Your task to perform on an android device: search for starred emails in the gmail app Image 0: 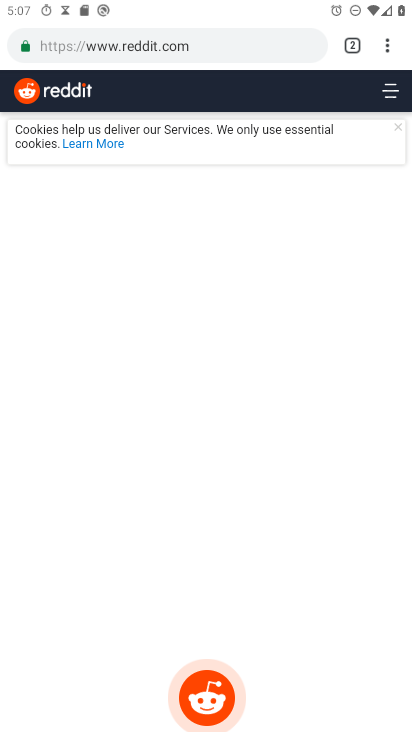
Step 0: press home button
Your task to perform on an android device: search for starred emails in the gmail app Image 1: 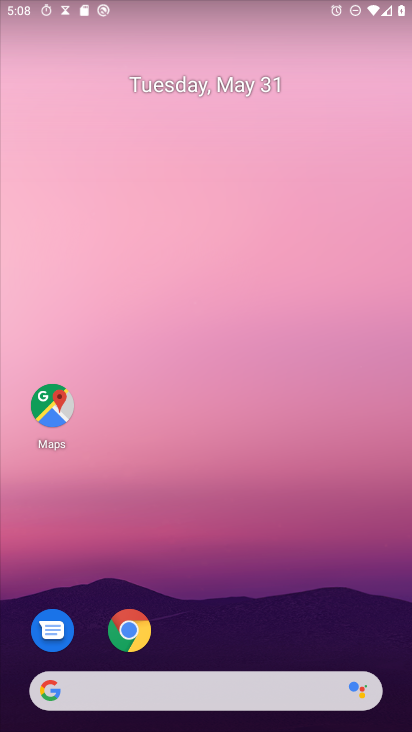
Step 1: drag from (178, 690) to (211, 28)
Your task to perform on an android device: search for starred emails in the gmail app Image 2: 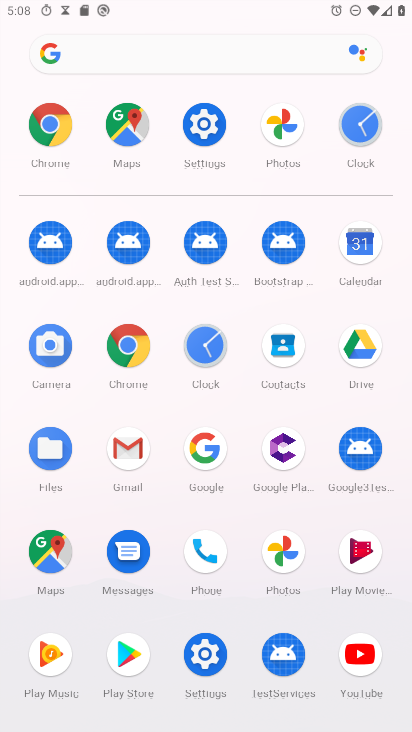
Step 2: click (135, 448)
Your task to perform on an android device: search for starred emails in the gmail app Image 3: 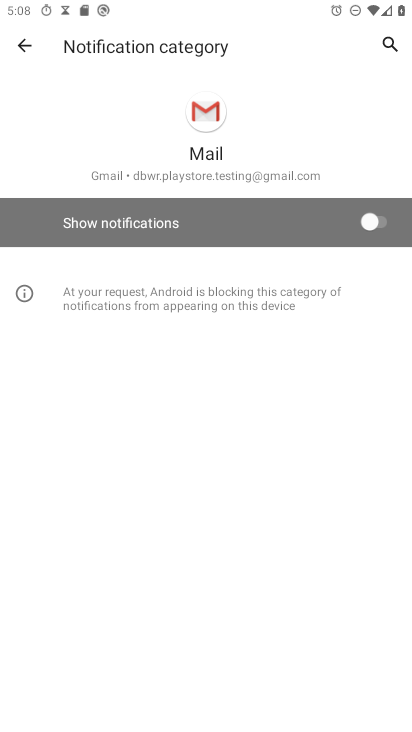
Step 3: press back button
Your task to perform on an android device: search for starred emails in the gmail app Image 4: 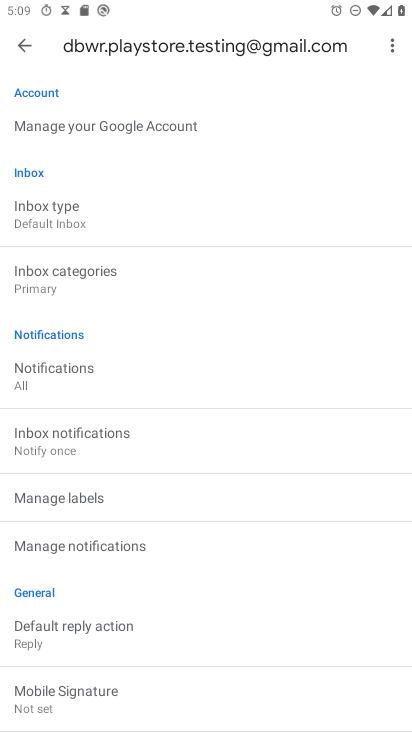
Step 4: press back button
Your task to perform on an android device: search for starred emails in the gmail app Image 5: 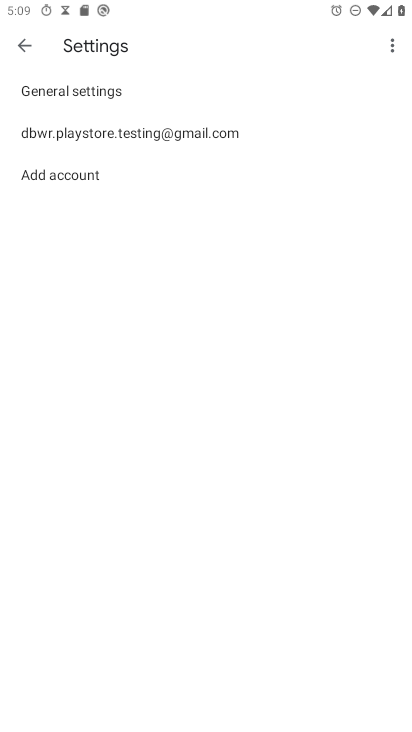
Step 5: press back button
Your task to perform on an android device: search for starred emails in the gmail app Image 6: 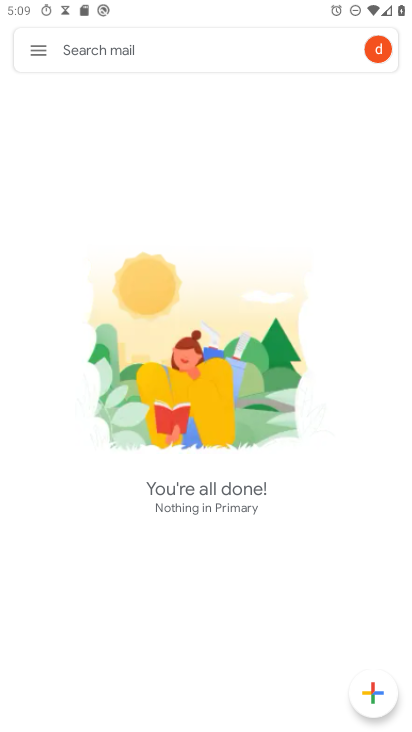
Step 6: click (41, 50)
Your task to perform on an android device: search for starred emails in the gmail app Image 7: 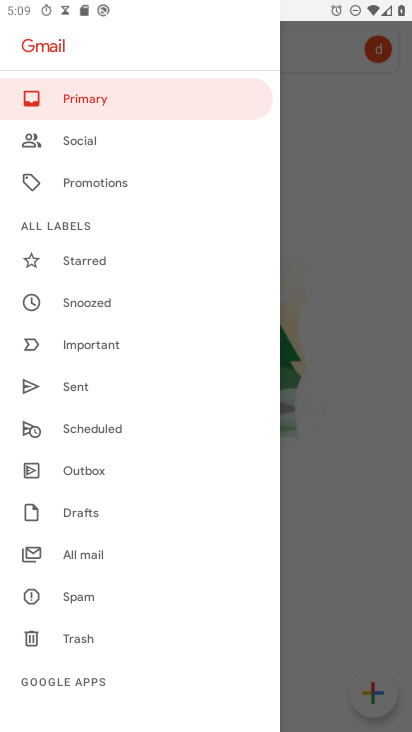
Step 7: click (102, 255)
Your task to perform on an android device: search for starred emails in the gmail app Image 8: 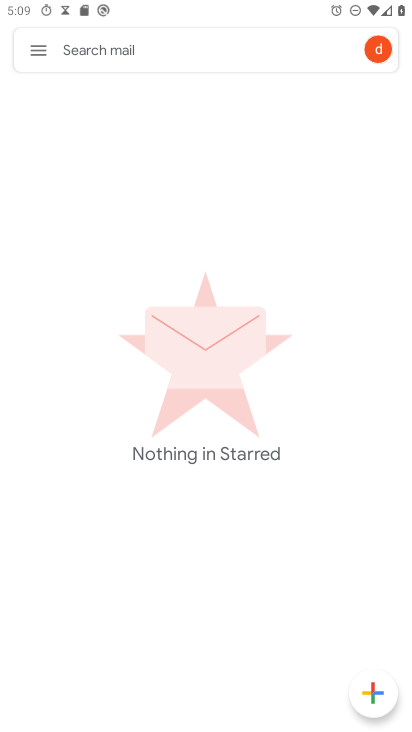
Step 8: task complete